Your task to perform on an android device: Go to Reddit.com Image 0: 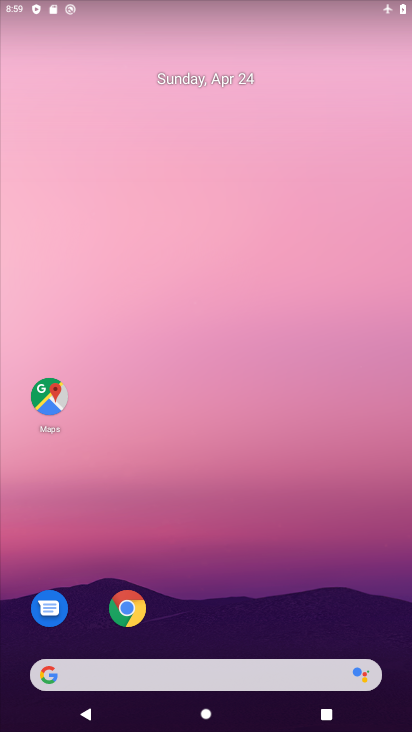
Step 0: click (201, 669)
Your task to perform on an android device: Go to Reddit.com Image 1: 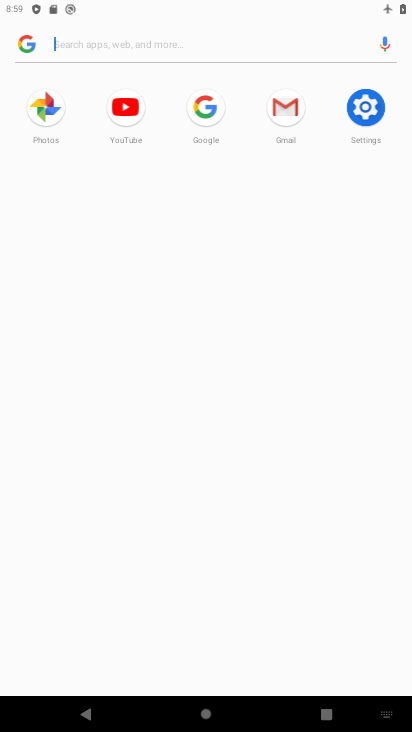
Step 1: type "Reddit.com"
Your task to perform on an android device: Go to Reddit.com Image 2: 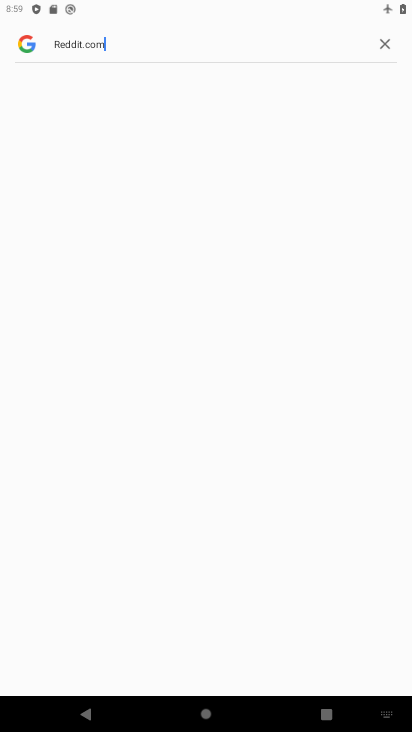
Step 2: task complete